Your task to perform on an android device: Find coffee shops on Maps Image 0: 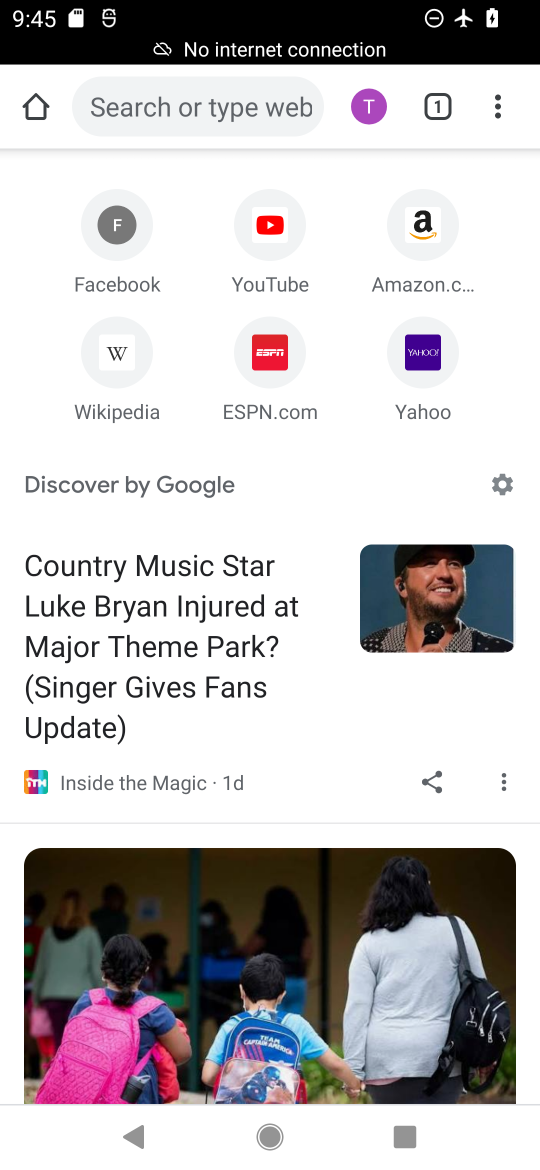
Step 0: press home button
Your task to perform on an android device: Find coffee shops on Maps Image 1: 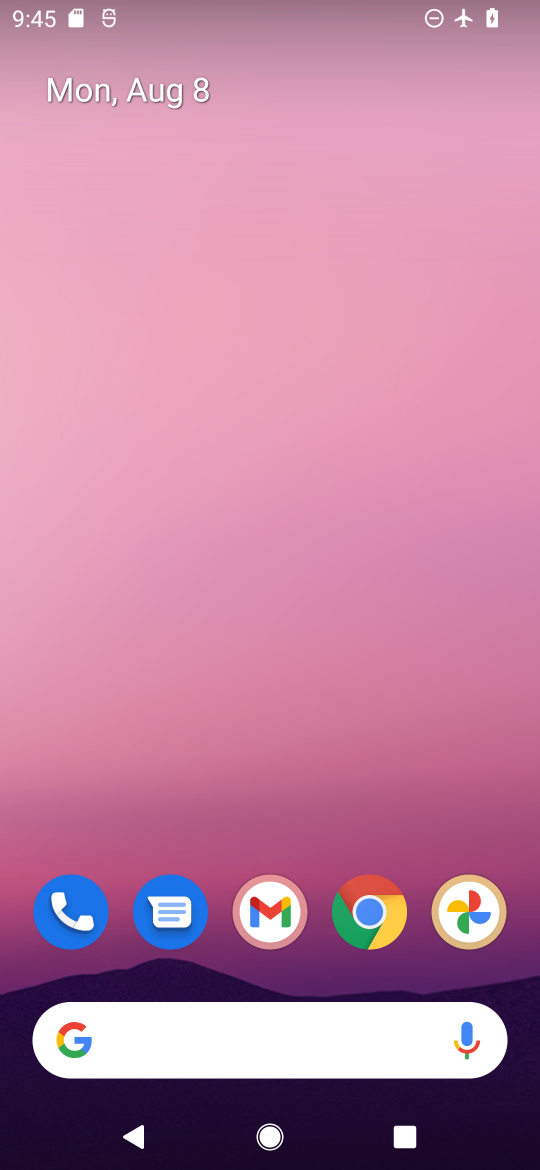
Step 1: drag from (414, 975) to (166, 114)
Your task to perform on an android device: Find coffee shops on Maps Image 2: 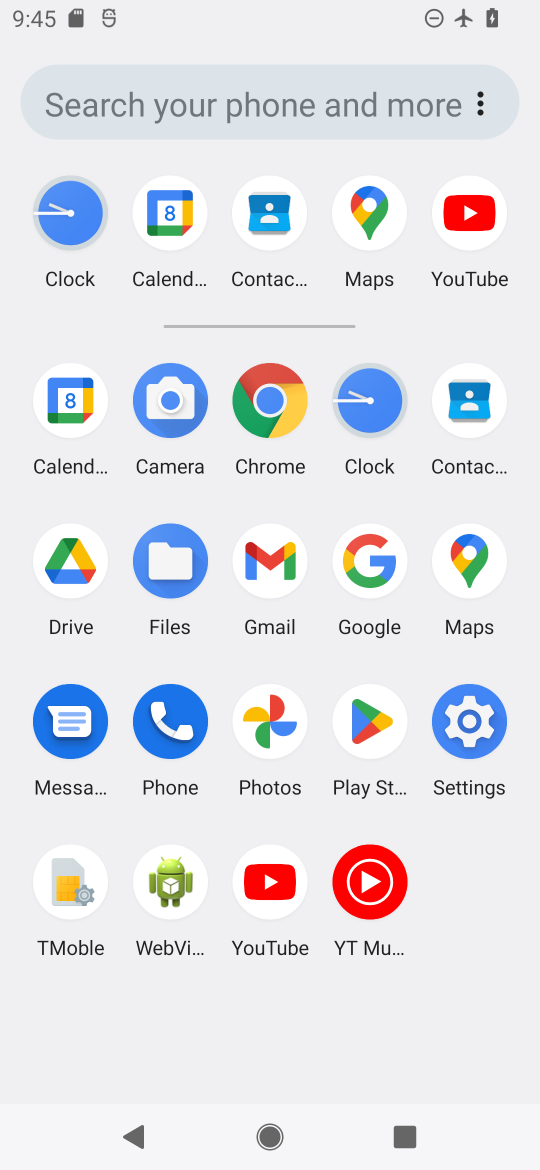
Step 2: click (505, 560)
Your task to perform on an android device: Find coffee shops on Maps Image 3: 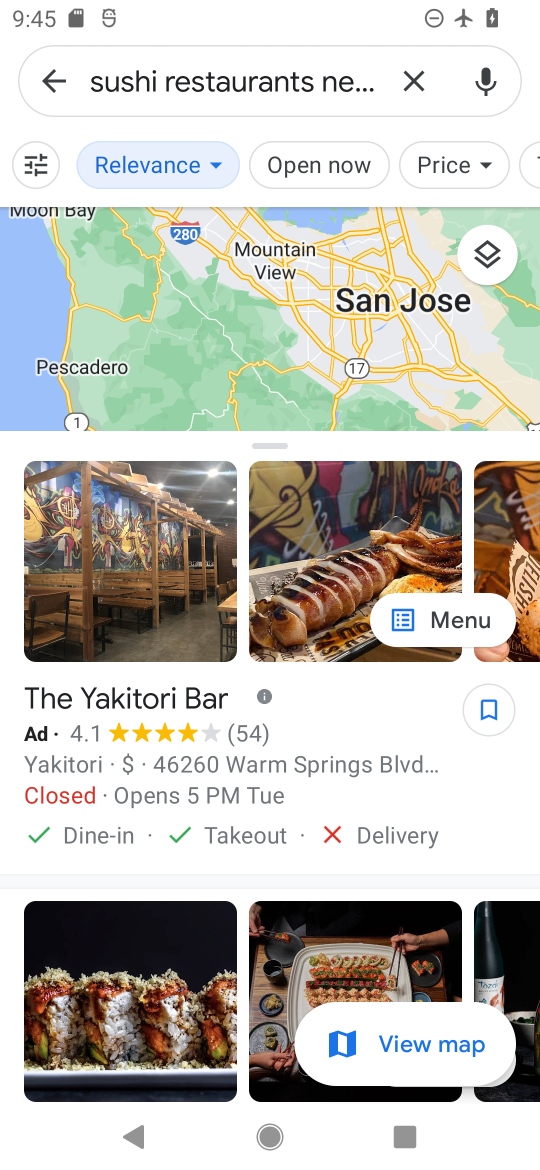
Step 3: click (436, 79)
Your task to perform on an android device: Find coffee shops on Maps Image 4: 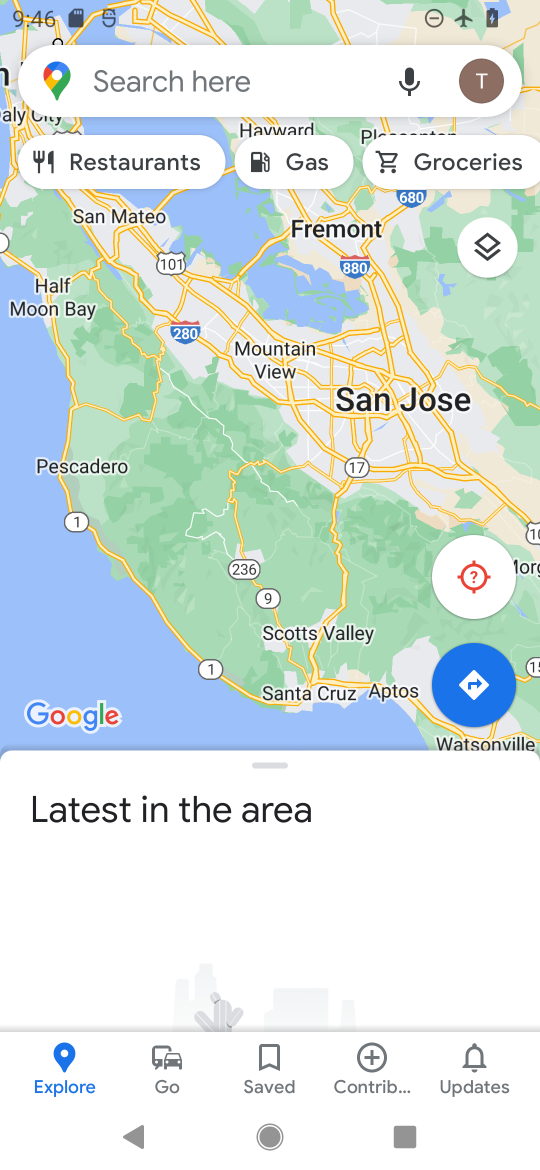
Step 4: click (217, 81)
Your task to perform on an android device: Find coffee shops on Maps Image 5: 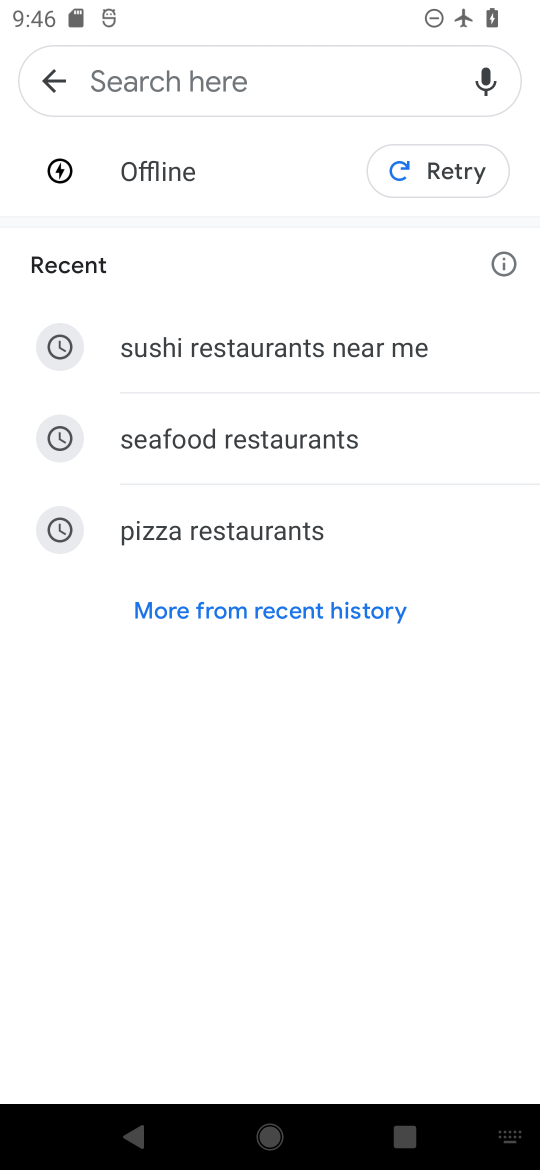
Step 5: type "coffee "
Your task to perform on an android device: Find coffee shops on Maps Image 6: 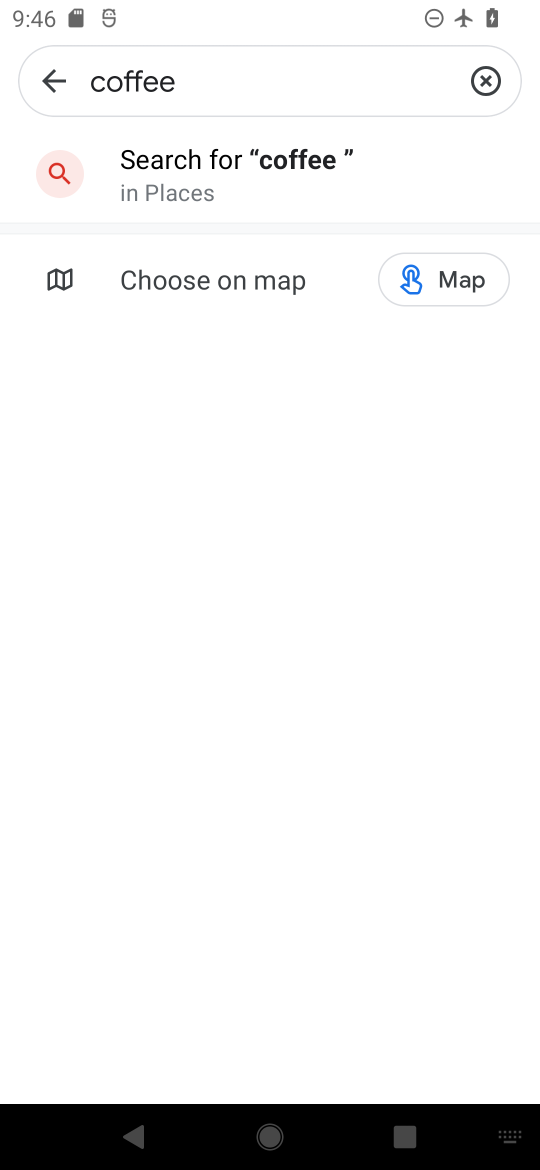
Step 6: task complete